Your task to perform on an android device: Check the news Image 0: 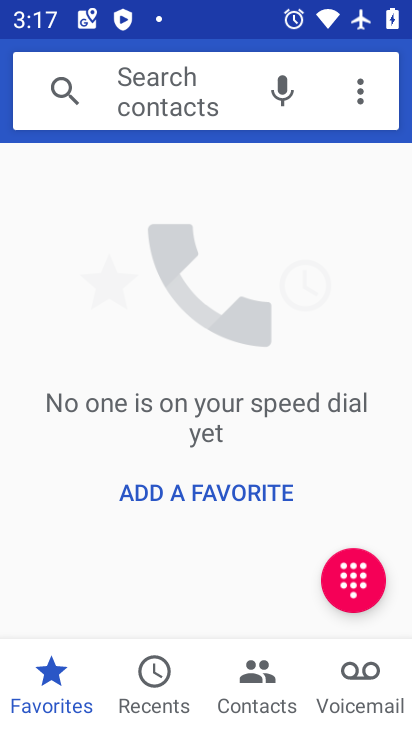
Step 0: press home button
Your task to perform on an android device: Check the news Image 1: 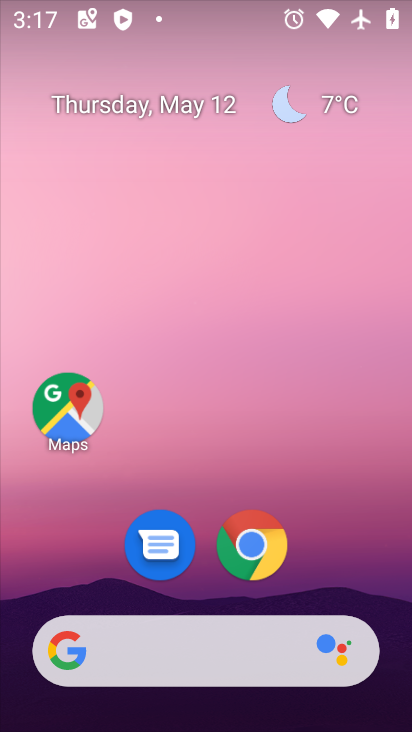
Step 1: task complete